Your task to perform on an android device: turn on showing notifications on the lock screen Image 0: 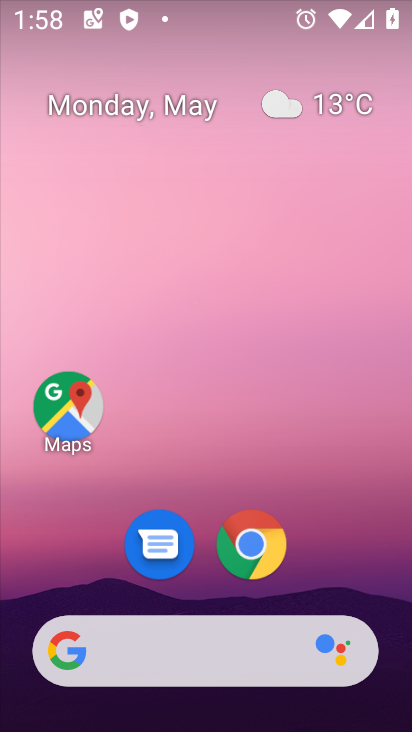
Step 0: drag from (396, 626) to (351, 183)
Your task to perform on an android device: turn on showing notifications on the lock screen Image 1: 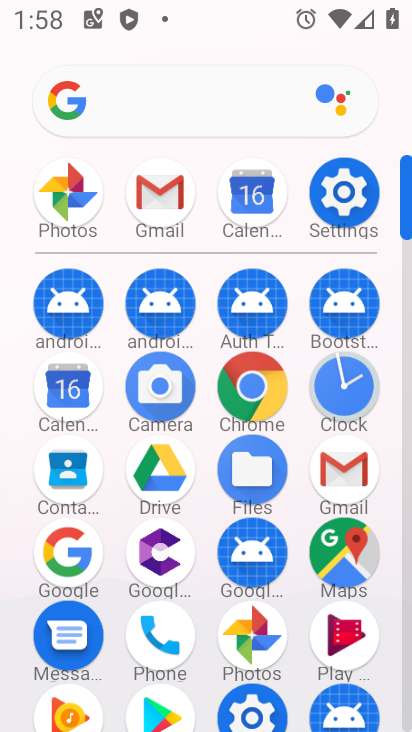
Step 1: click (406, 712)
Your task to perform on an android device: turn on showing notifications on the lock screen Image 2: 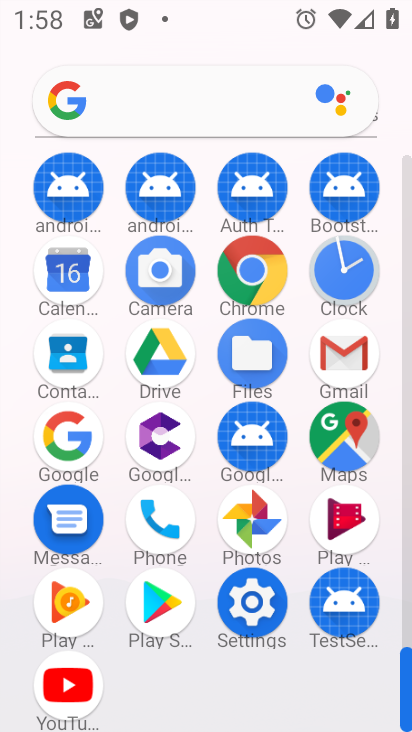
Step 2: click (251, 602)
Your task to perform on an android device: turn on showing notifications on the lock screen Image 3: 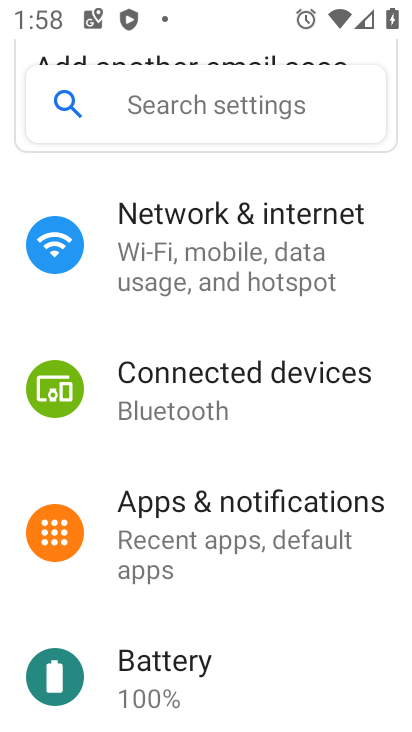
Step 3: click (208, 521)
Your task to perform on an android device: turn on showing notifications on the lock screen Image 4: 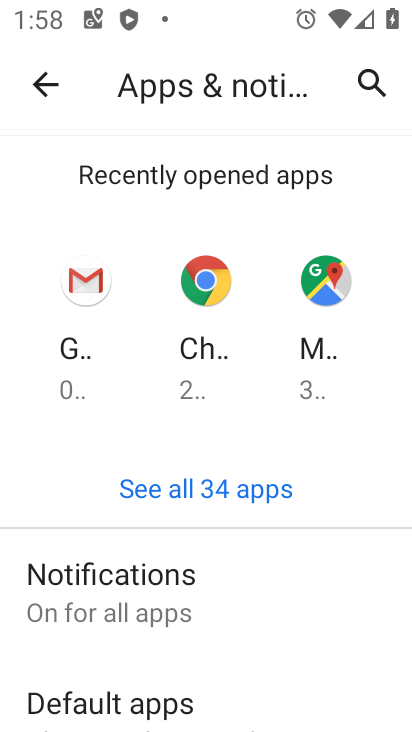
Step 4: drag from (245, 648) to (273, 424)
Your task to perform on an android device: turn on showing notifications on the lock screen Image 5: 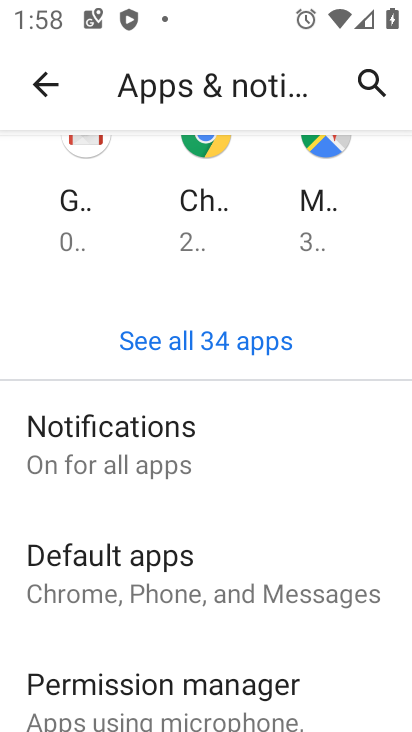
Step 5: click (107, 440)
Your task to perform on an android device: turn on showing notifications on the lock screen Image 6: 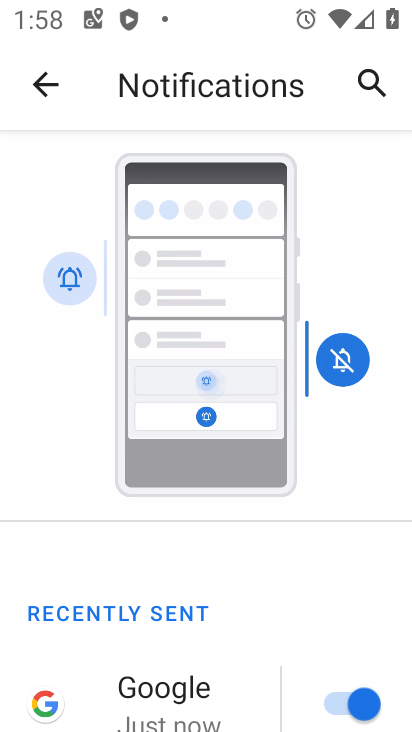
Step 6: drag from (291, 694) to (196, 121)
Your task to perform on an android device: turn on showing notifications on the lock screen Image 7: 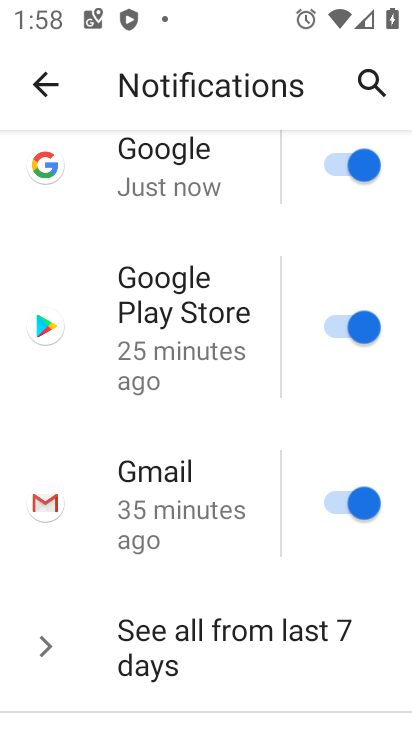
Step 7: drag from (261, 579) to (232, 143)
Your task to perform on an android device: turn on showing notifications on the lock screen Image 8: 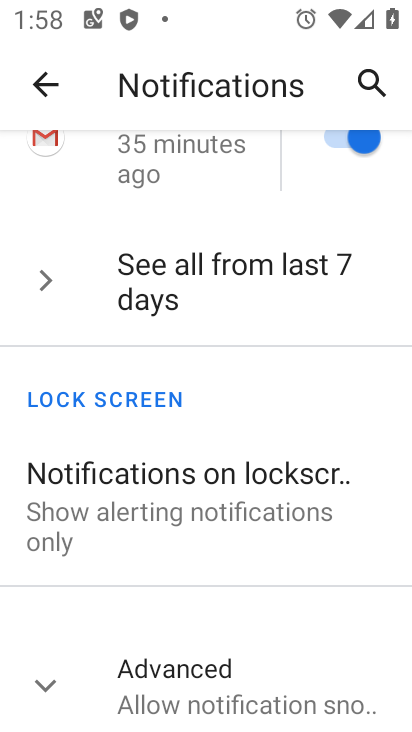
Step 8: click (99, 508)
Your task to perform on an android device: turn on showing notifications on the lock screen Image 9: 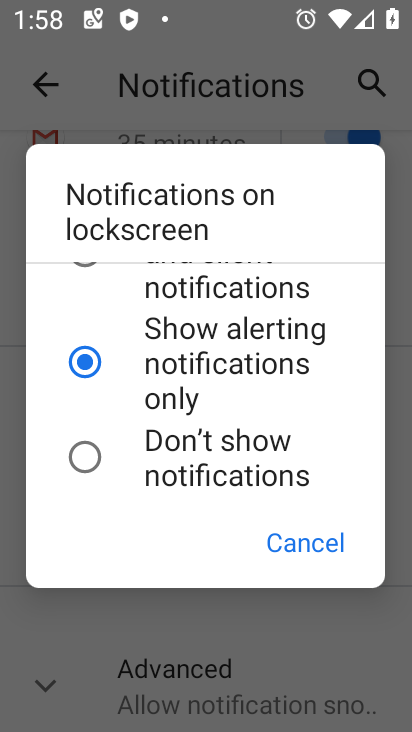
Step 9: task complete